Your task to perform on an android device: turn on notifications settings in the gmail app Image 0: 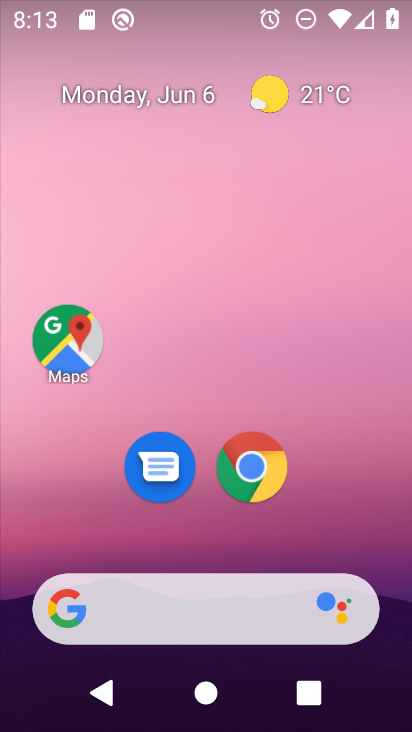
Step 0: drag from (338, 221) to (340, 50)
Your task to perform on an android device: turn on notifications settings in the gmail app Image 1: 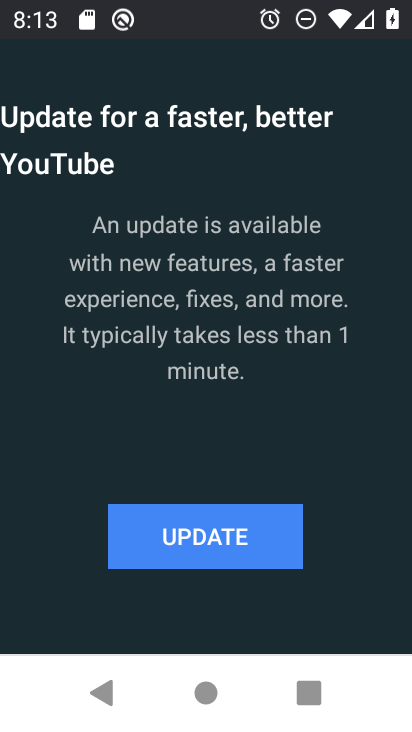
Step 1: press home button
Your task to perform on an android device: turn on notifications settings in the gmail app Image 2: 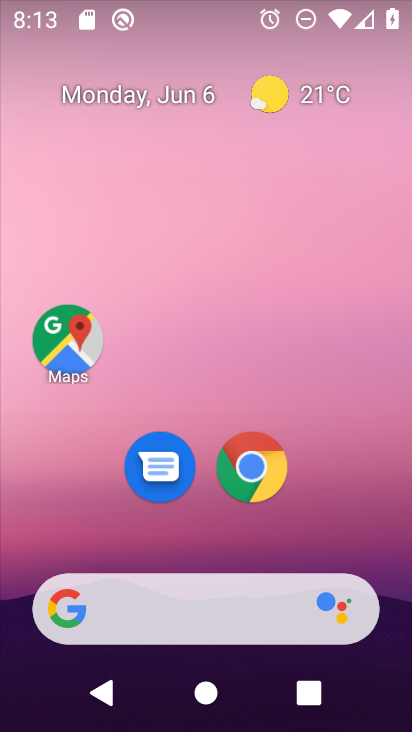
Step 2: drag from (377, 524) to (393, 135)
Your task to perform on an android device: turn on notifications settings in the gmail app Image 3: 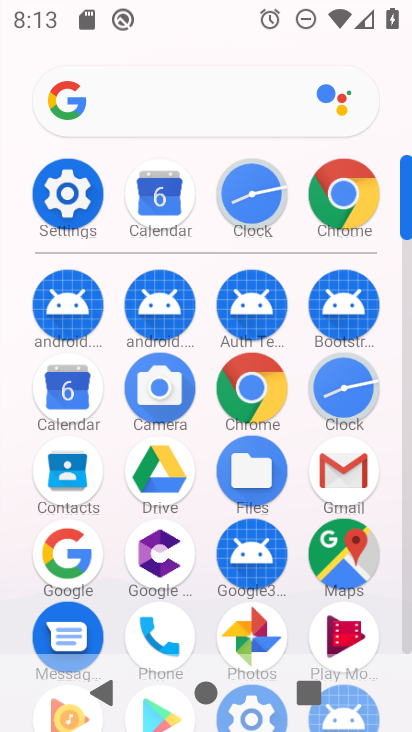
Step 3: click (352, 471)
Your task to perform on an android device: turn on notifications settings in the gmail app Image 4: 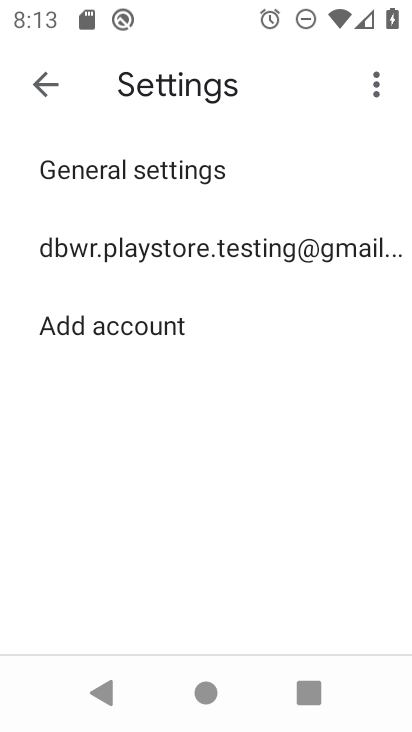
Step 4: click (218, 248)
Your task to perform on an android device: turn on notifications settings in the gmail app Image 5: 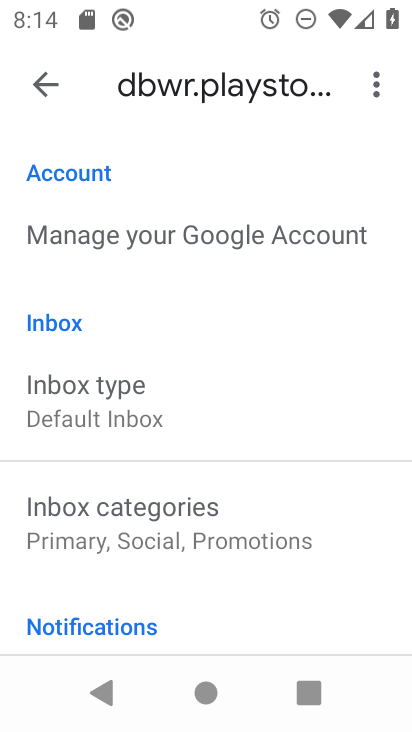
Step 5: drag from (326, 437) to (328, 392)
Your task to perform on an android device: turn on notifications settings in the gmail app Image 6: 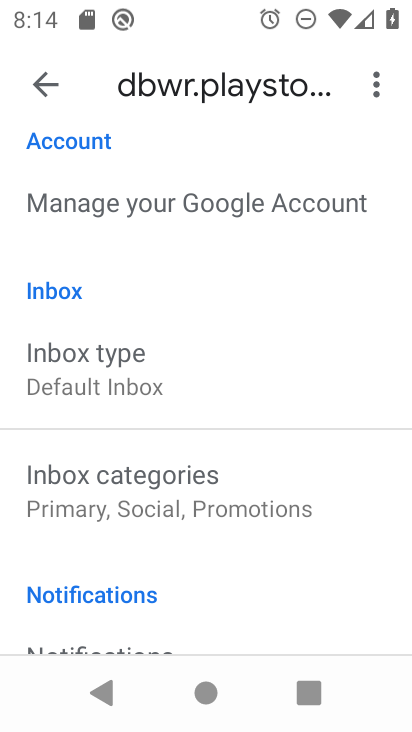
Step 6: drag from (310, 532) to (305, 418)
Your task to perform on an android device: turn on notifications settings in the gmail app Image 7: 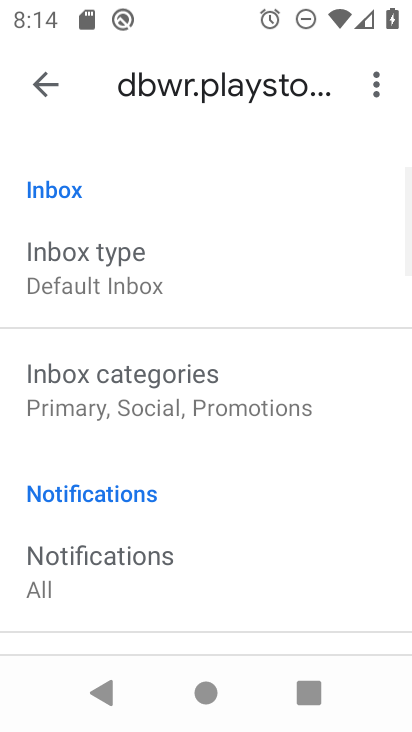
Step 7: drag from (305, 543) to (315, 420)
Your task to perform on an android device: turn on notifications settings in the gmail app Image 8: 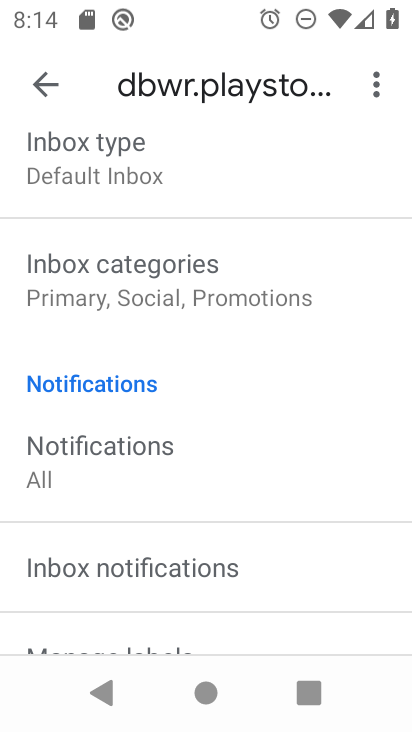
Step 8: drag from (349, 485) to (344, 359)
Your task to perform on an android device: turn on notifications settings in the gmail app Image 9: 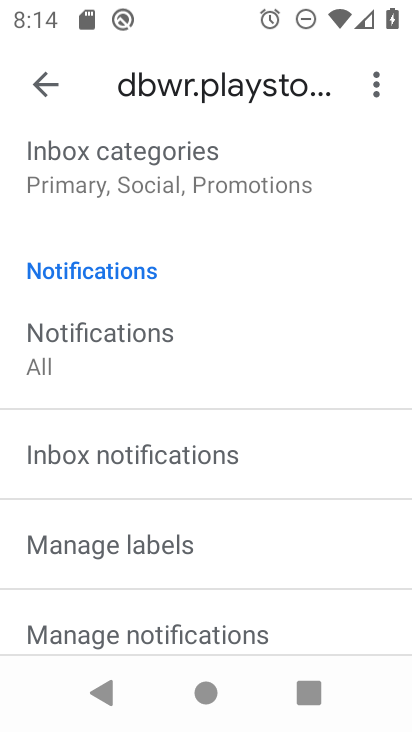
Step 9: drag from (314, 487) to (302, 373)
Your task to perform on an android device: turn on notifications settings in the gmail app Image 10: 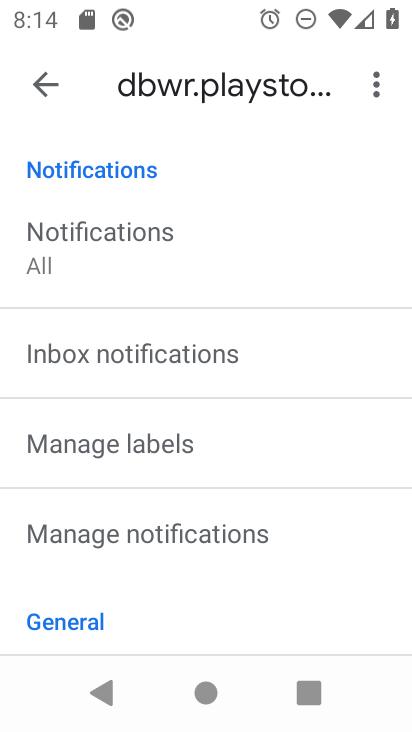
Step 10: drag from (328, 451) to (330, 379)
Your task to perform on an android device: turn on notifications settings in the gmail app Image 11: 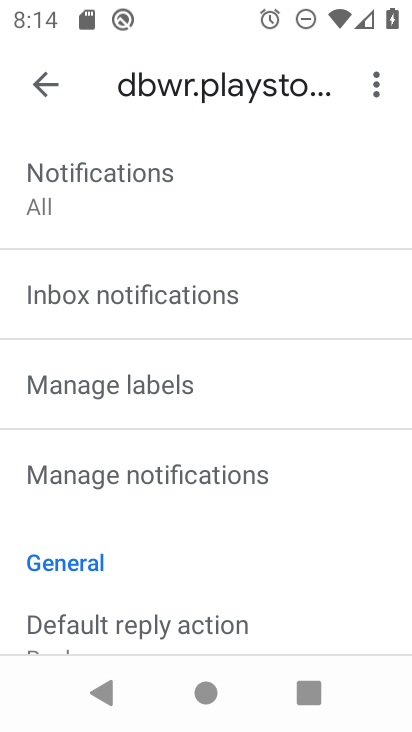
Step 11: click (271, 475)
Your task to perform on an android device: turn on notifications settings in the gmail app Image 12: 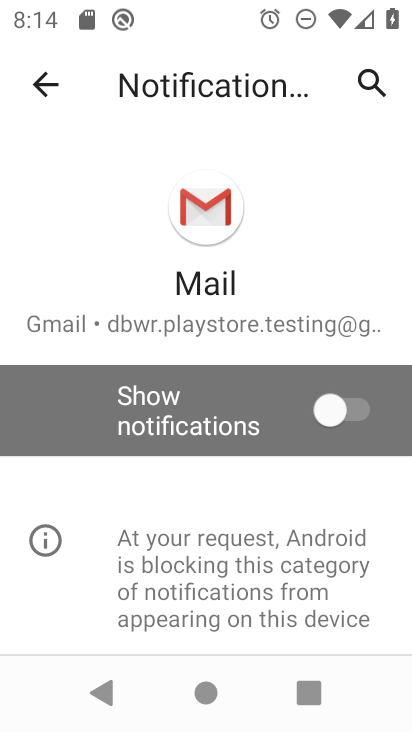
Step 12: click (326, 417)
Your task to perform on an android device: turn on notifications settings in the gmail app Image 13: 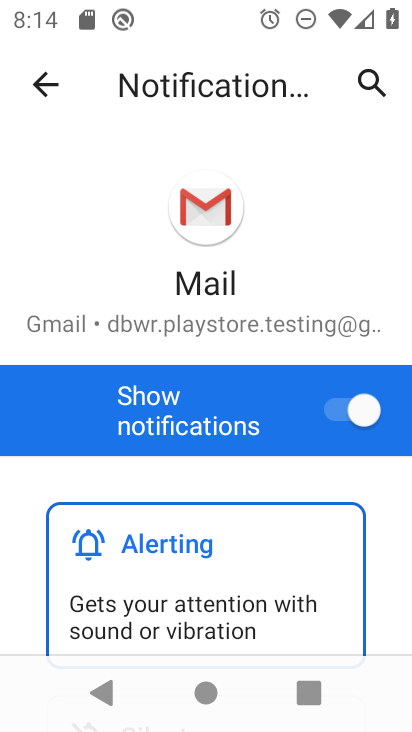
Step 13: task complete